Your task to perform on an android device: change the clock style Image 0: 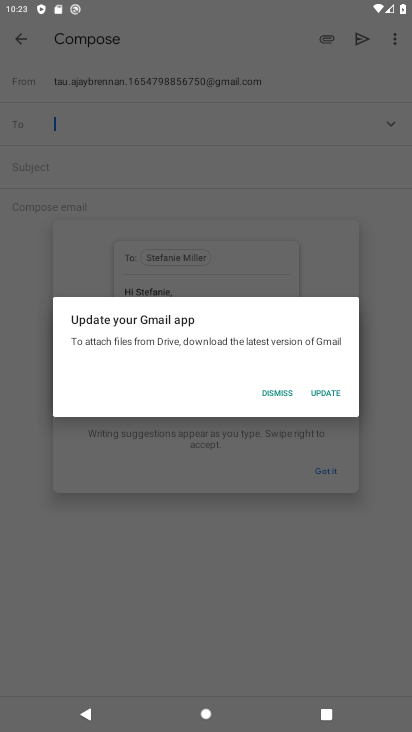
Step 0: press home button
Your task to perform on an android device: change the clock style Image 1: 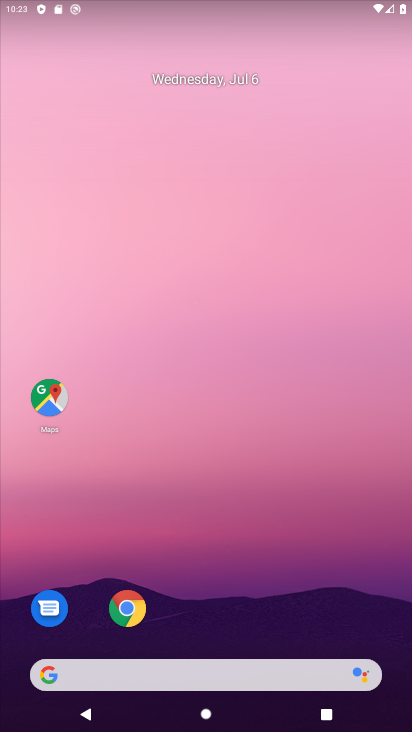
Step 1: drag from (252, 590) to (366, 67)
Your task to perform on an android device: change the clock style Image 2: 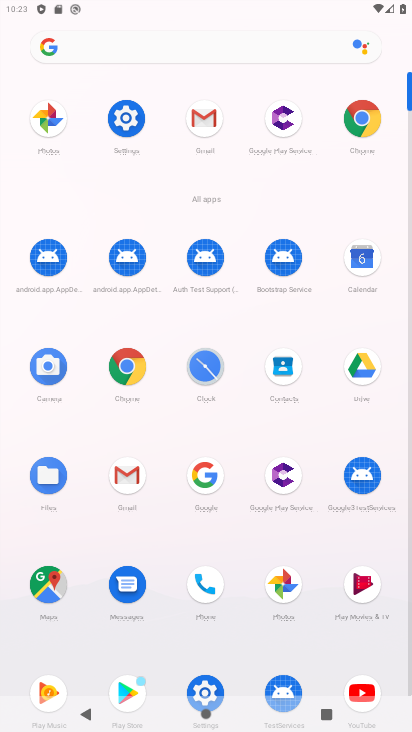
Step 2: click (208, 363)
Your task to perform on an android device: change the clock style Image 3: 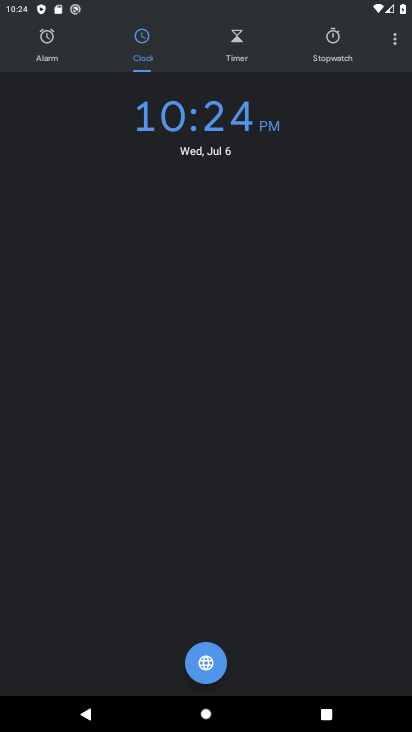
Step 3: click (394, 51)
Your task to perform on an android device: change the clock style Image 4: 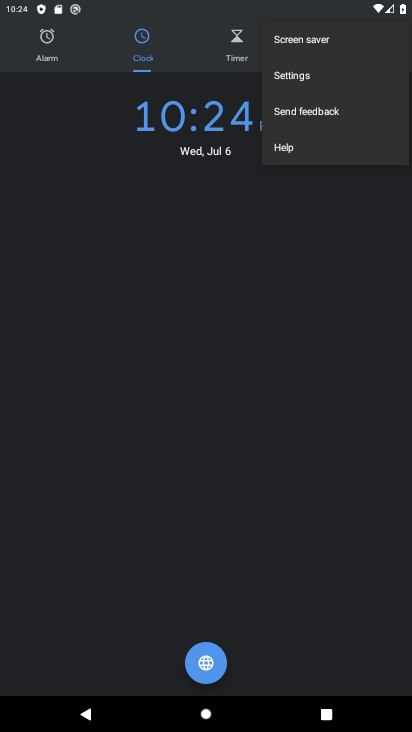
Step 4: click (299, 82)
Your task to perform on an android device: change the clock style Image 5: 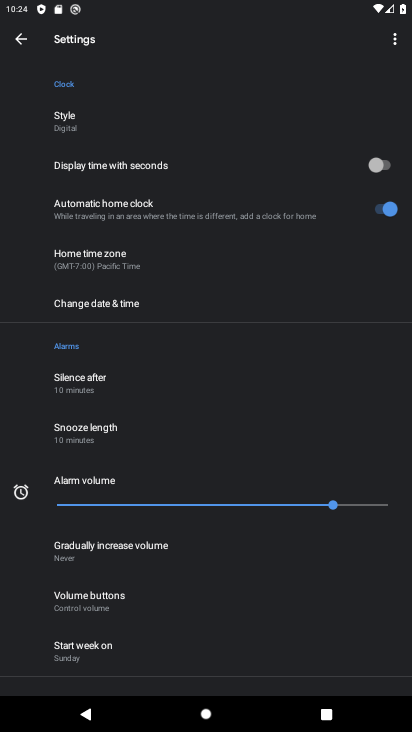
Step 5: drag from (231, 288) to (180, 634)
Your task to perform on an android device: change the clock style Image 6: 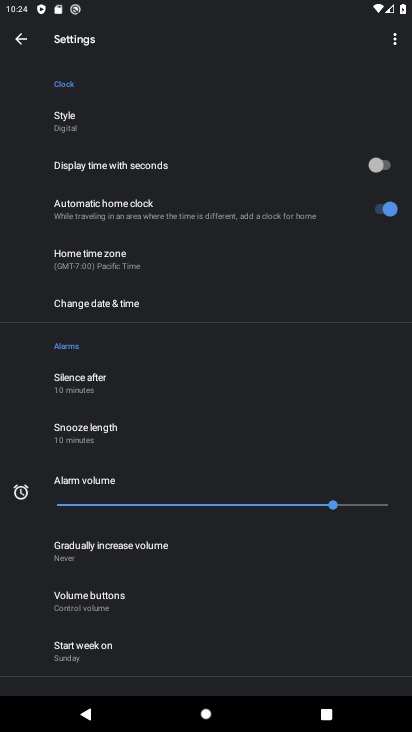
Step 6: click (62, 116)
Your task to perform on an android device: change the clock style Image 7: 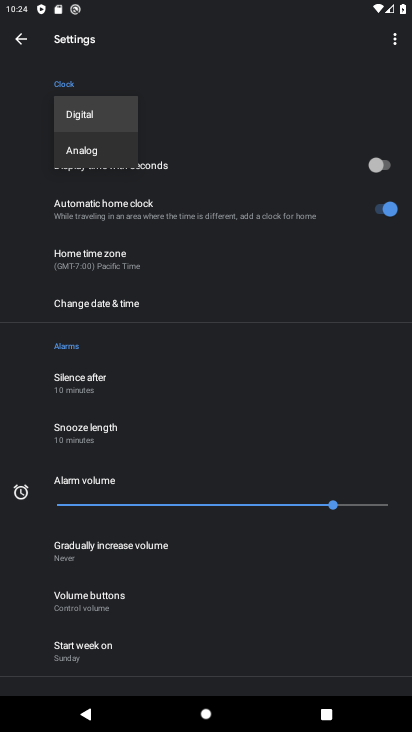
Step 7: click (108, 148)
Your task to perform on an android device: change the clock style Image 8: 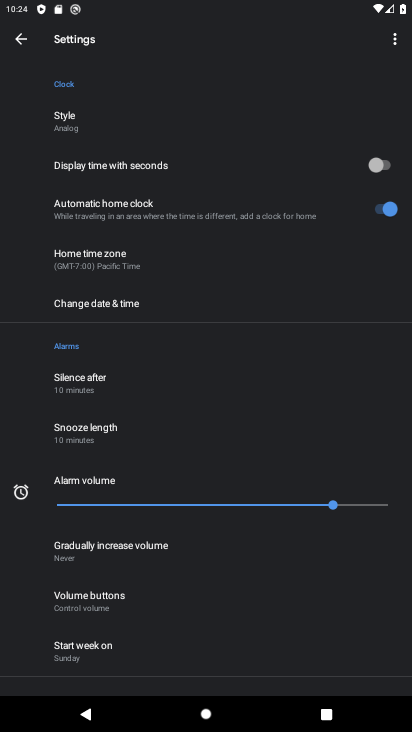
Step 8: task complete